Your task to perform on an android device: toggle notification dots Image 0: 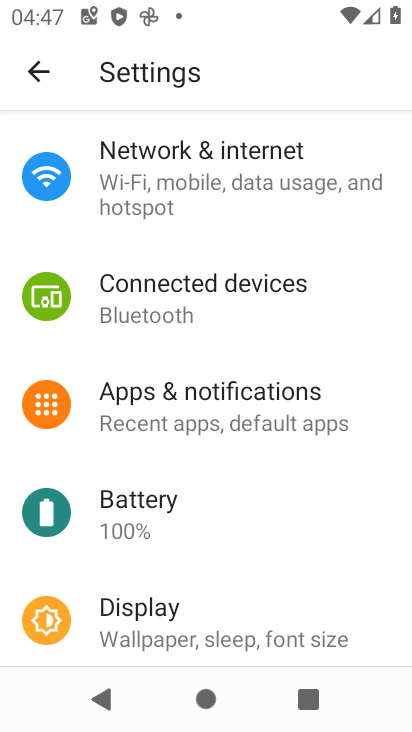
Step 0: press home button
Your task to perform on an android device: toggle notification dots Image 1: 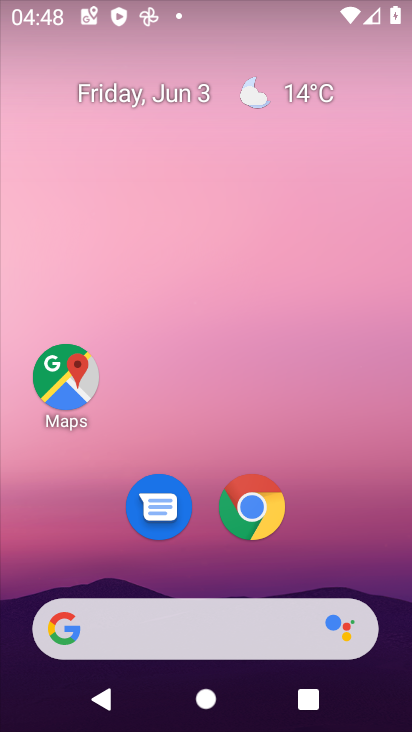
Step 1: drag from (311, 301) to (308, 21)
Your task to perform on an android device: toggle notification dots Image 2: 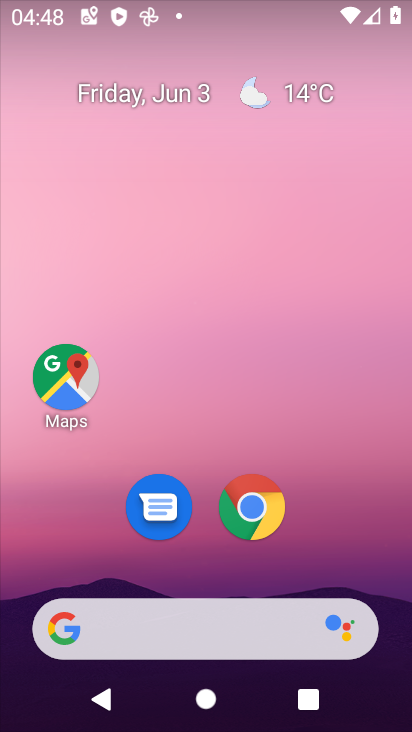
Step 2: drag from (333, 526) to (290, 0)
Your task to perform on an android device: toggle notification dots Image 3: 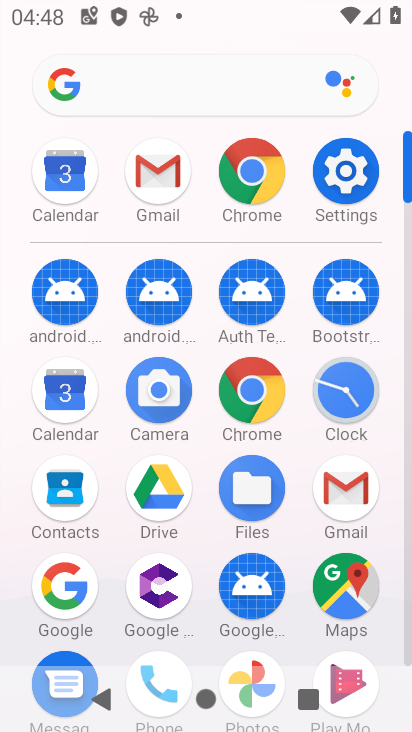
Step 3: click (344, 200)
Your task to perform on an android device: toggle notification dots Image 4: 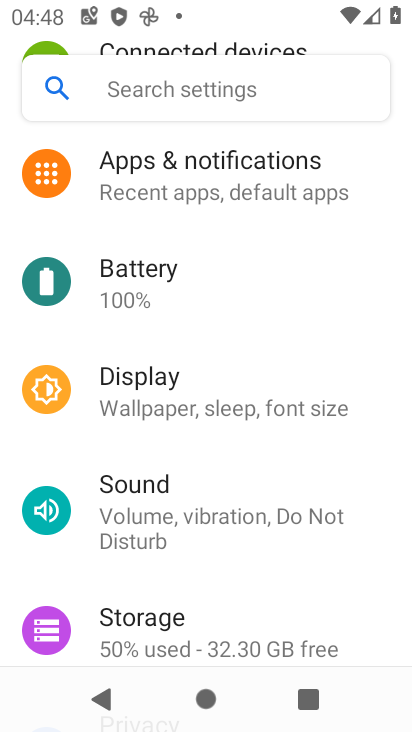
Step 4: drag from (326, 187) to (326, 496)
Your task to perform on an android device: toggle notification dots Image 5: 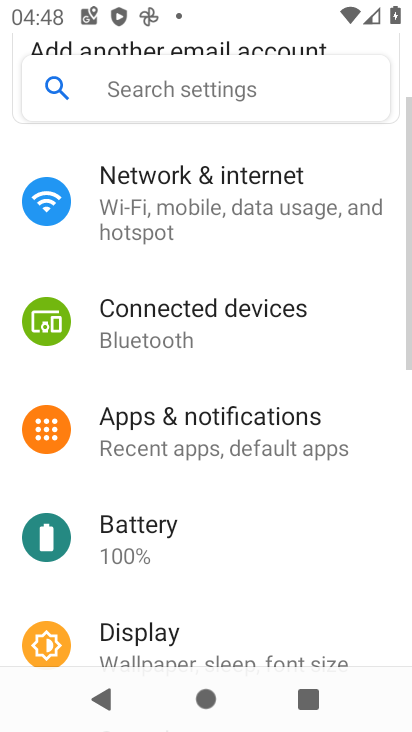
Step 5: click (291, 411)
Your task to perform on an android device: toggle notification dots Image 6: 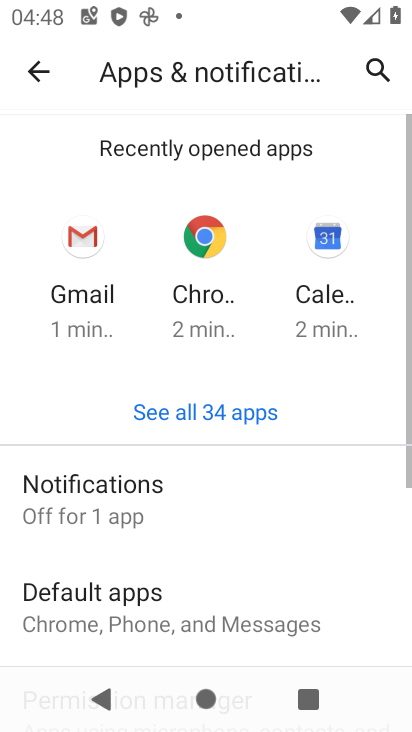
Step 6: click (211, 500)
Your task to perform on an android device: toggle notification dots Image 7: 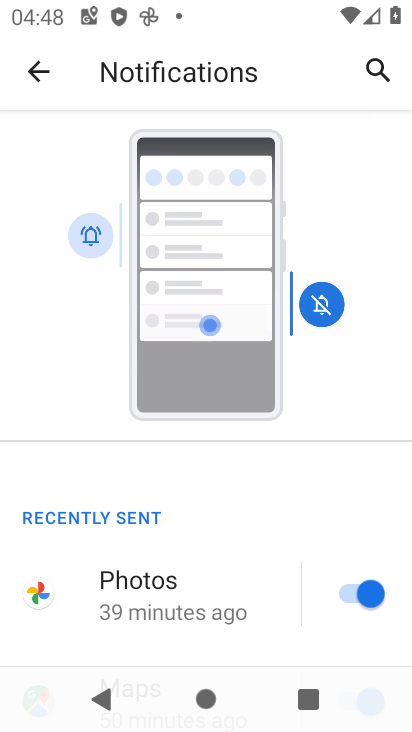
Step 7: drag from (272, 599) to (261, 88)
Your task to perform on an android device: toggle notification dots Image 8: 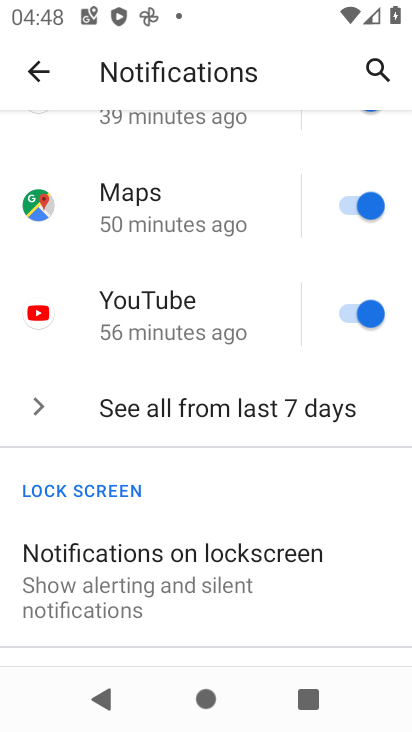
Step 8: drag from (324, 609) to (281, 295)
Your task to perform on an android device: toggle notification dots Image 9: 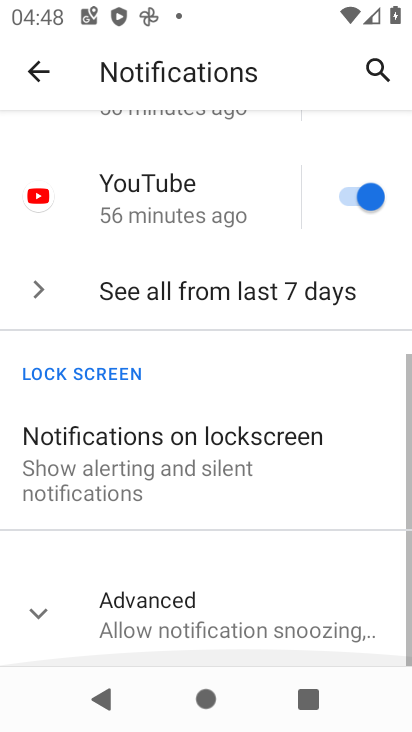
Step 9: click (74, 637)
Your task to perform on an android device: toggle notification dots Image 10: 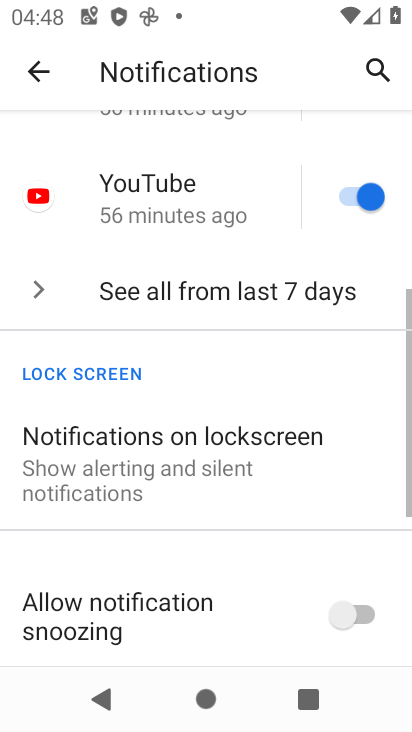
Step 10: drag from (232, 642) to (216, 304)
Your task to perform on an android device: toggle notification dots Image 11: 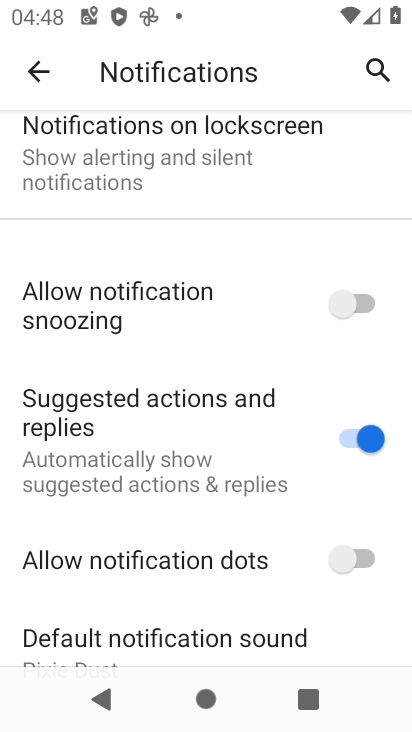
Step 11: click (358, 551)
Your task to perform on an android device: toggle notification dots Image 12: 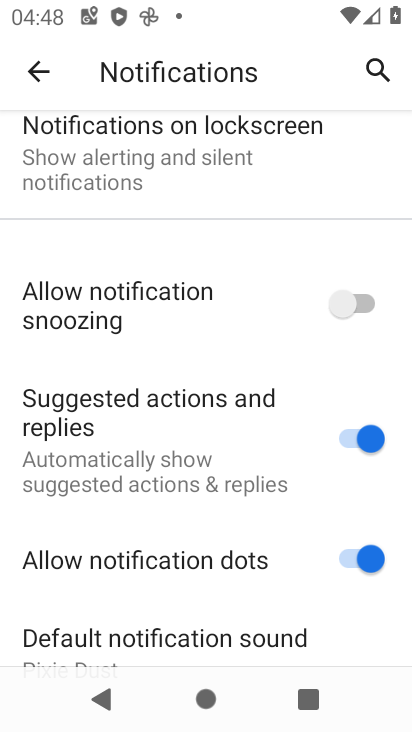
Step 12: task complete